Your task to perform on an android device: move an email to a new category in the gmail app Image 0: 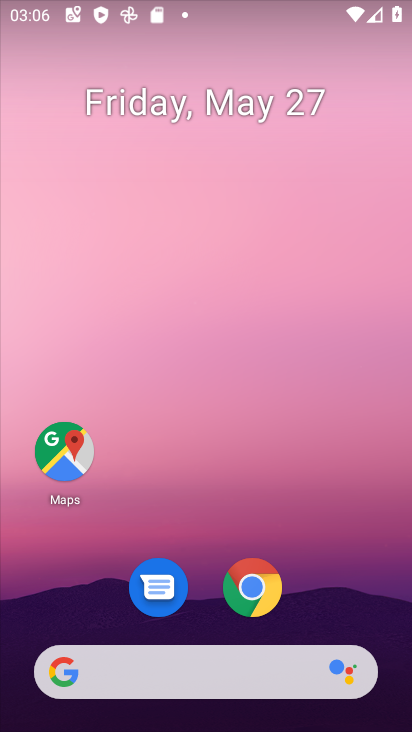
Step 0: drag from (351, 339) to (344, 281)
Your task to perform on an android device: move an email to a new category in the gmail app Image 1: 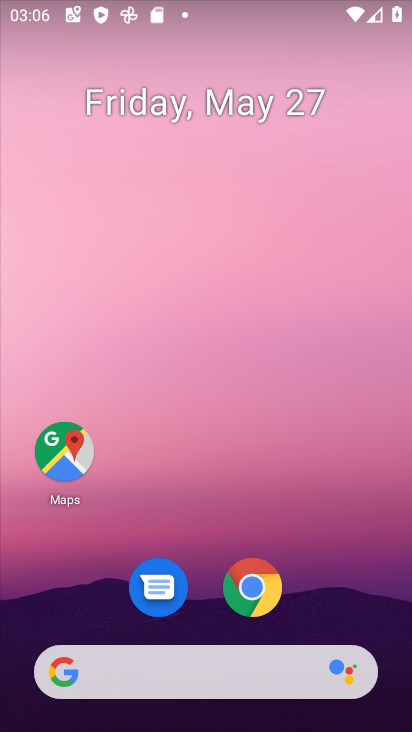
Step 1: drag from (361, 552) to (345, 18)
Your task to perform on an android device: move an email to a new category in the gmail app Image 2: 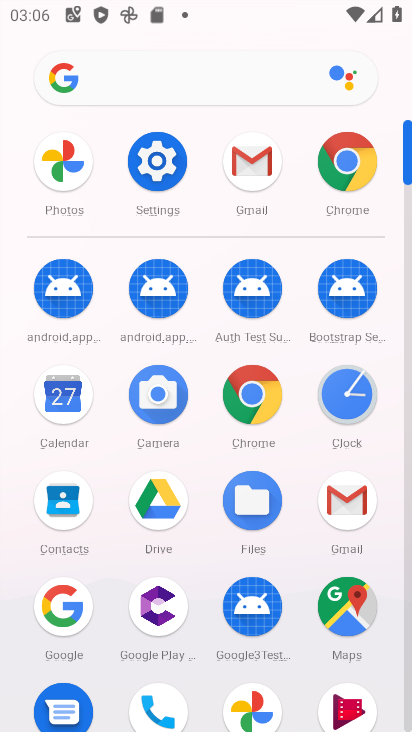
Step 2: click (355, 507)
Your task to perform on an android device: move an email to a new category in the gmail app Image 3: 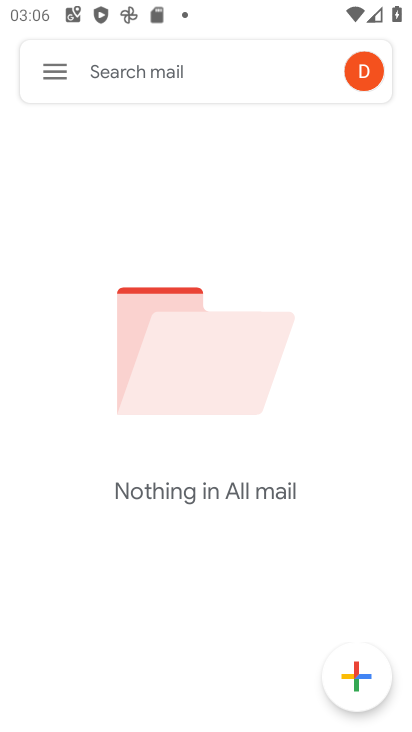
Step 3: click (44, 65)
Your task to perform on an android device: move an email to a new category in the gmail app Image 4: 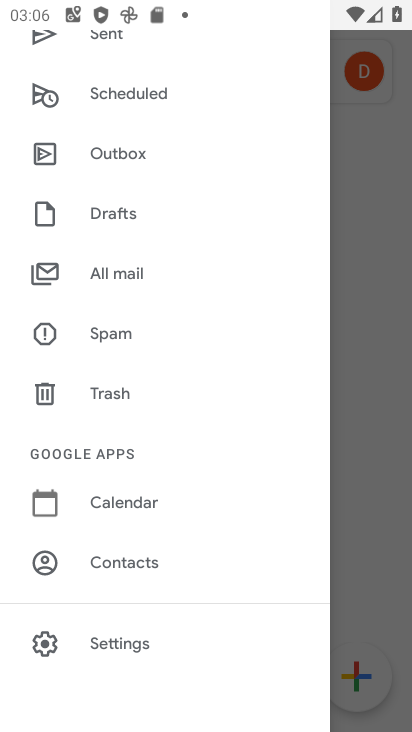
Step 4: drag from (241, 569) to (241, 95)
Your task to perform on an android device: move an email to a new category in the gmail app Image 5: 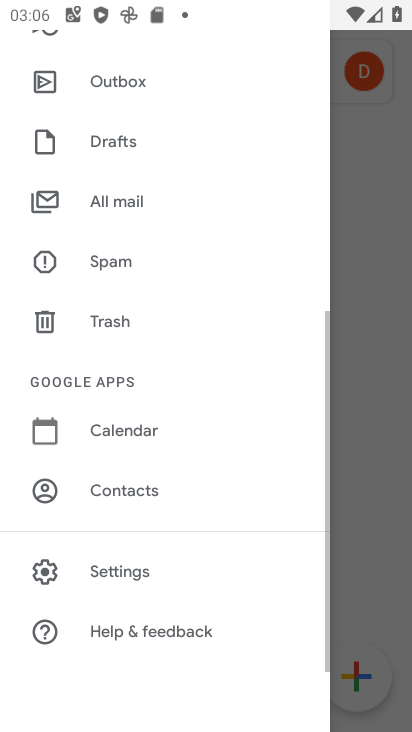
Step 5: drag from (221, 178) to (217, 285)
Your task to perform on an android device: move an email to a new category in the gmail app Image 6: 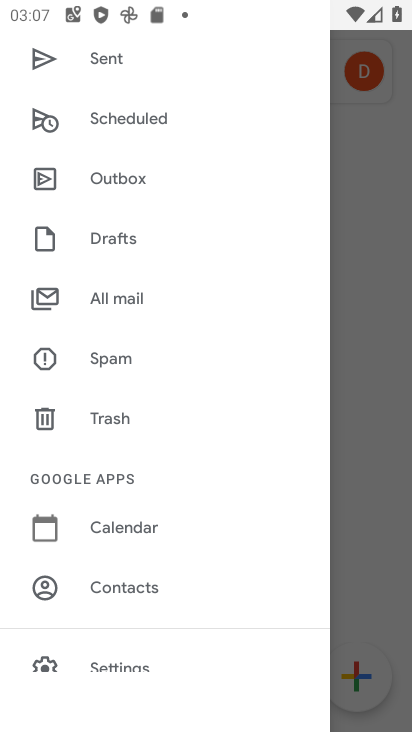
Step 6: click (110, 297)
Your task to perform on an android device: move an email to a new category in the gmail app Image 7: 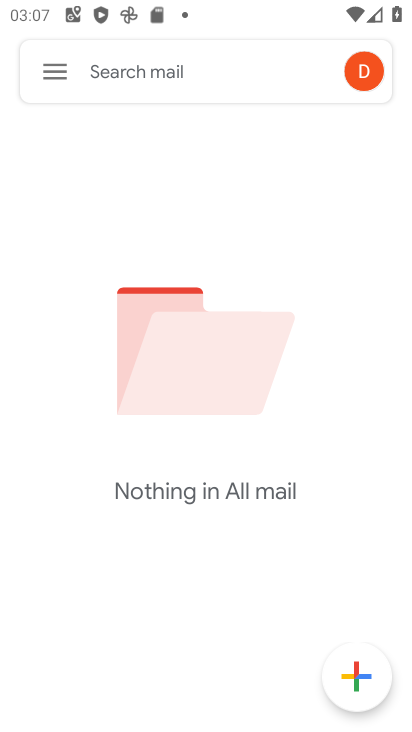
Step 7: task complete